Your task to perform on an android device: Open battery settings Image 0: 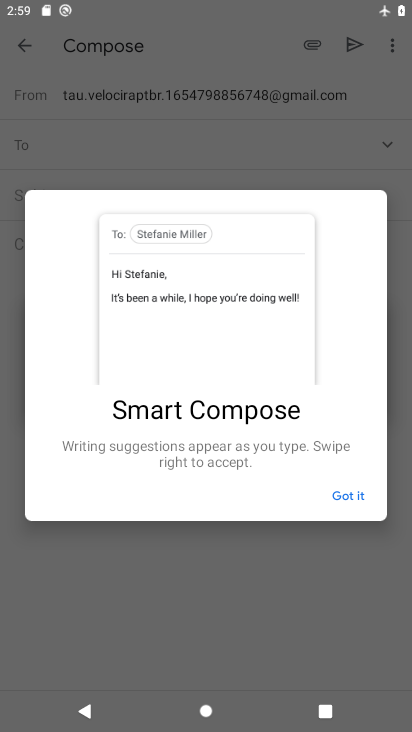
Step 0: press home button
Your task to perform on an android device: Open battery settings Image 1: 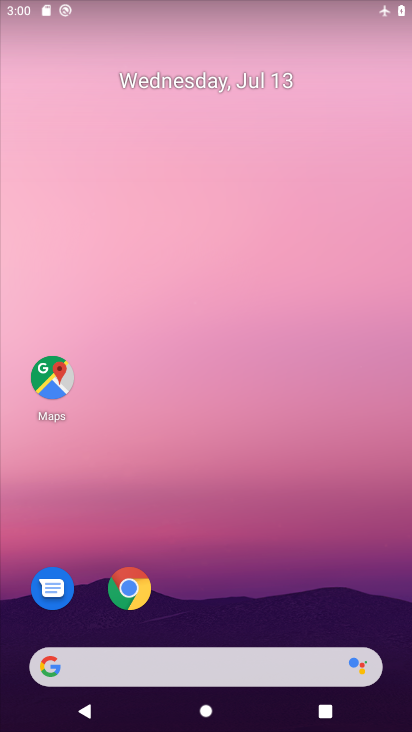
Step 1: drag from (187, 610) to (184, 127)
Your task to perform on an android device: Open battery settings Image 2: 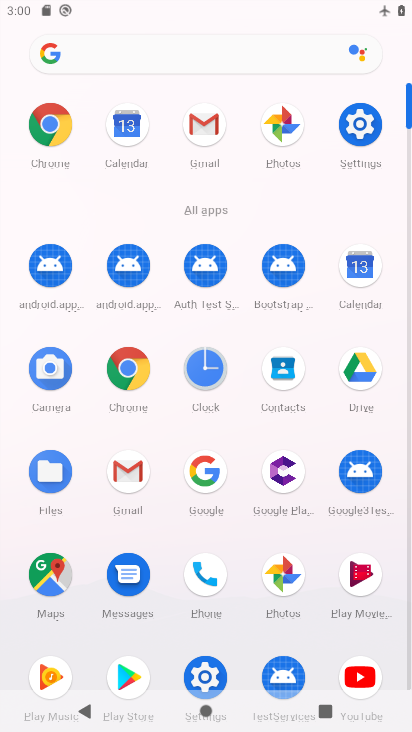
Step 2: click (348, 139)
Your task to perform on an android device: Open battery settings Image 3: 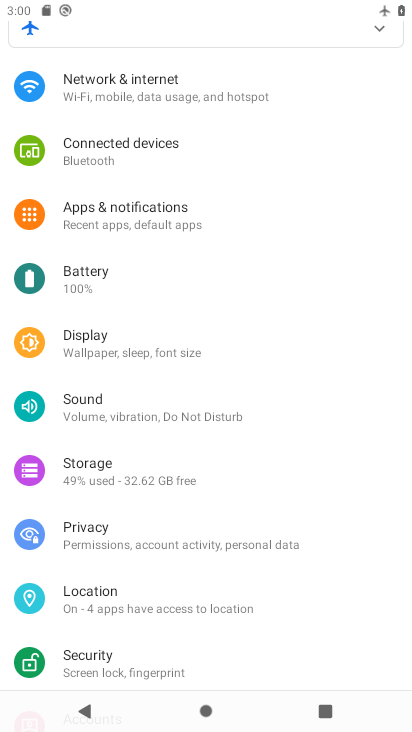
Step 3: click (113, 265)
Your task to perform on an android device: Open battery settings Image 4: 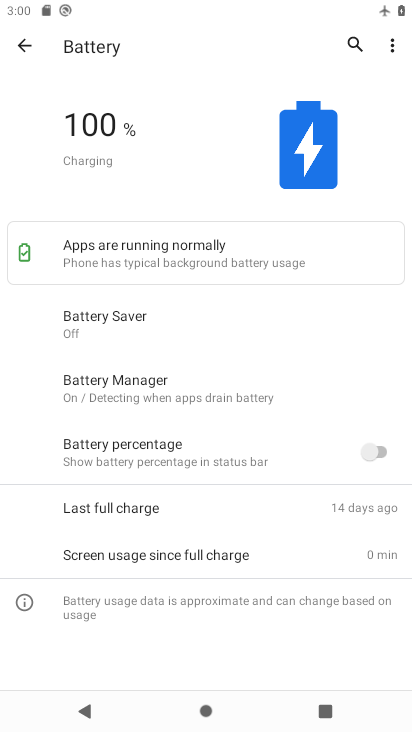
Step 4: task complete